Your task to perform on an android device: Search for vegetarian restaurants on Maps Image 0: 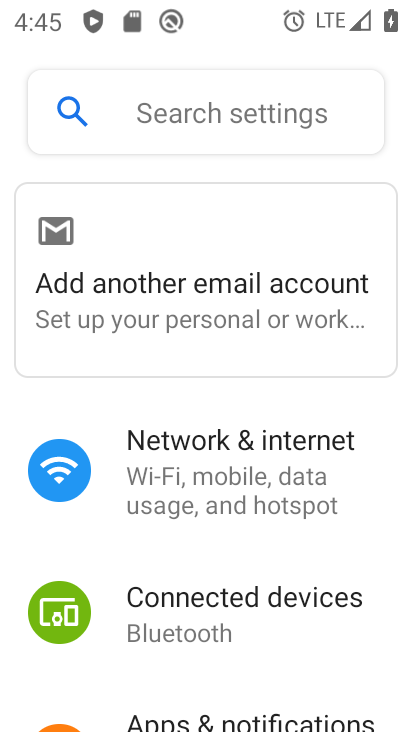
Step 0: press home button
Your task to perform on an android device: Search for vegetarian restaurants on Maps Image 1: 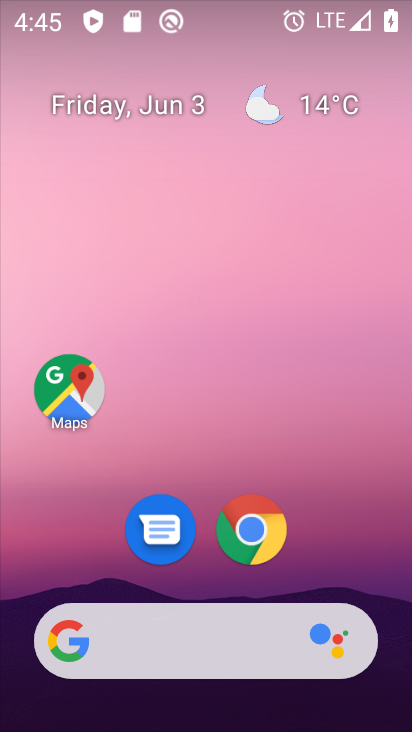
Step 1: click (68, 386)
Your task to perform on an android device: Search for vegetarian restaurants on Maps Image 2: 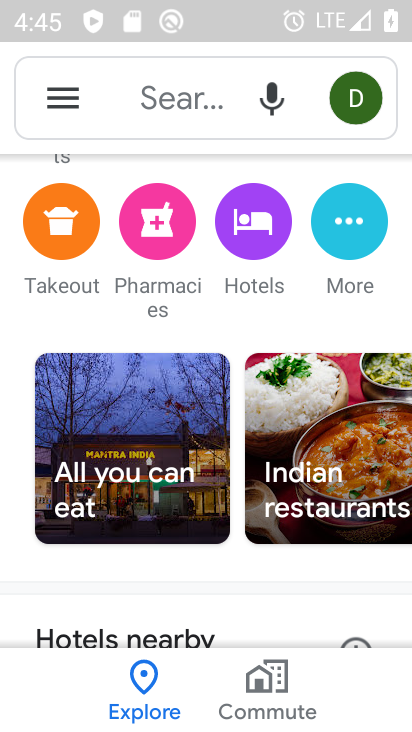
Step 2: click (159, 87)
Your task to perform on an android device: Search for vegetarian restaurants on Maps Image 3: 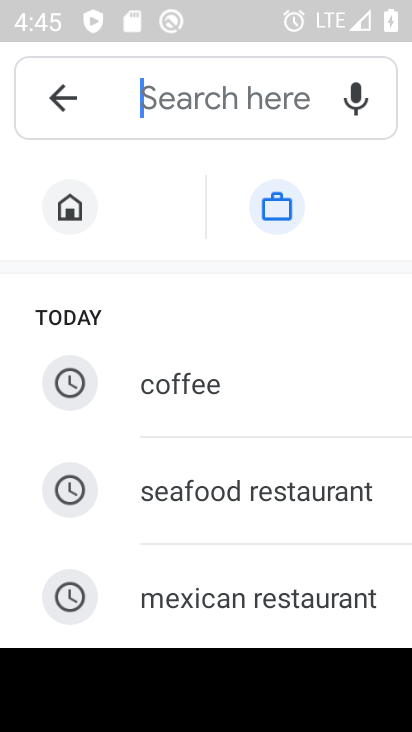
Step 3: drag from (225, 608) to (237, 163)
Your task to perform on an android device: Search for vegetarian restaurants on Maps Image 4: 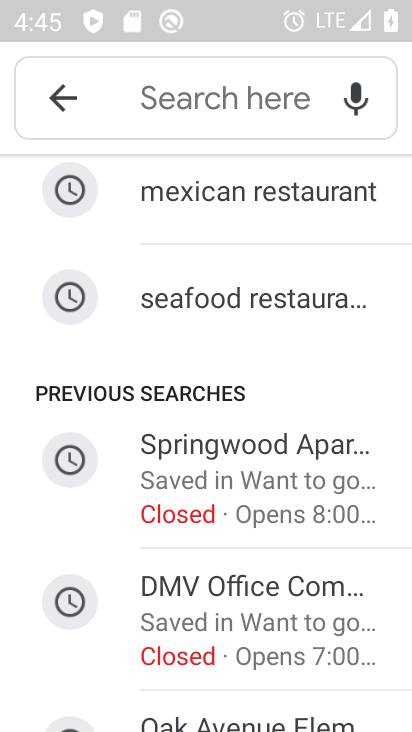
Step 4: click (191, 91)
Your task to perform on an android device: Search for vegetarian restaurants on Maps Image 5: 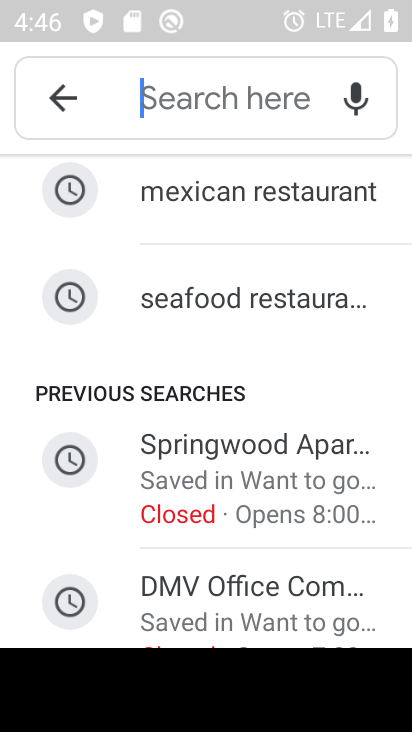
Step 5: type "vegetarian"
Your task to perform on an android device: Search for vegetarian restaurants on Maps Image 6: 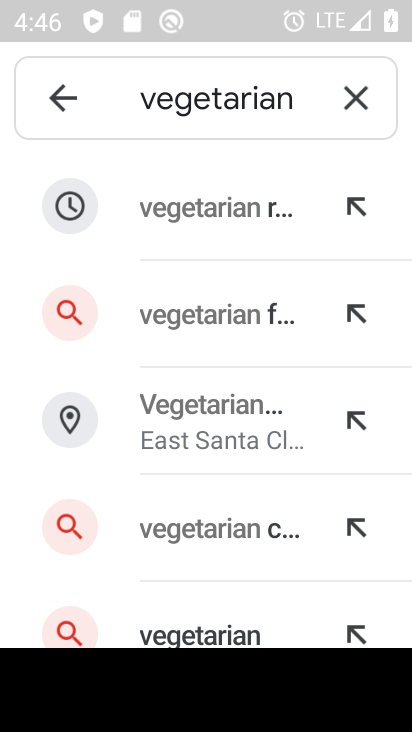
Step 6: click (250, 237)
Your task to perform on an android device: Search for vegetarian restaurants on Maps Image 7: 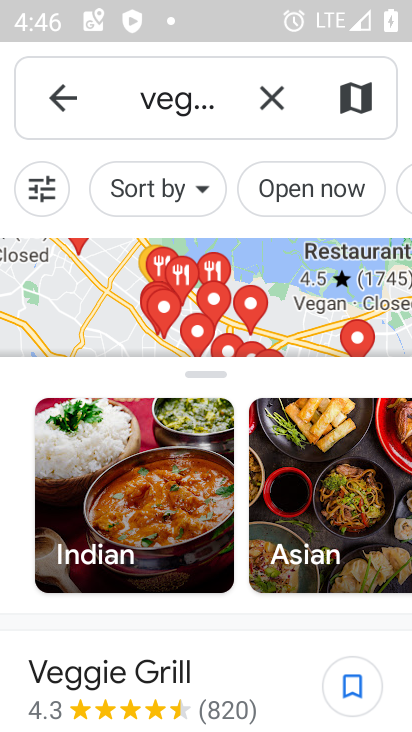
Step 7: task complete